Your task to perform on an android device: change alarm snooze length Image 0: 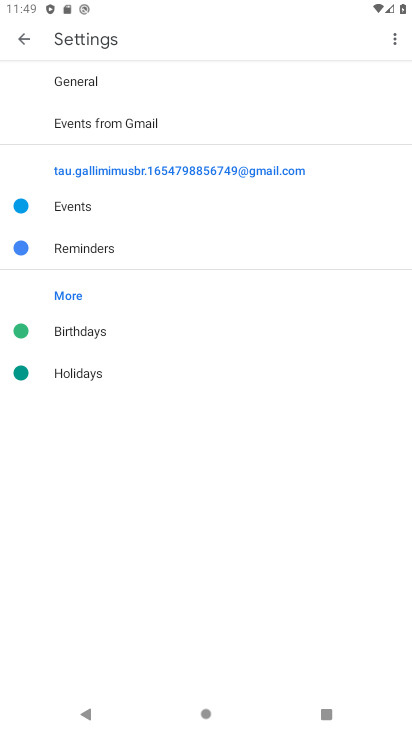
Step 0: press home button
Your task to perform on an android device: change alarm snooze length Image 1: 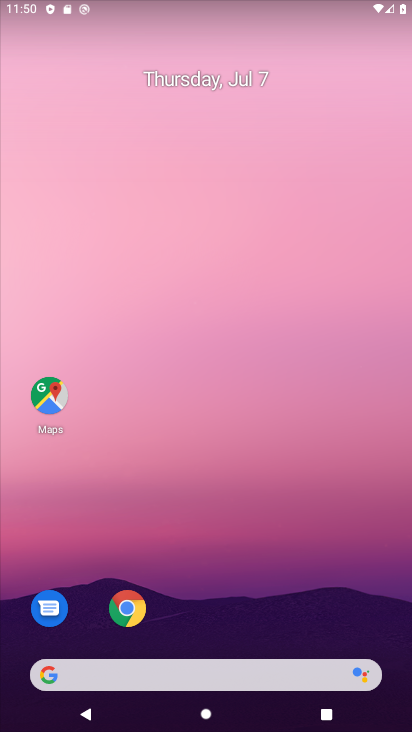
Step 1: drag from (233, 621) to (240, 145)
Your task to perform on an android device: change alarm snooze length Image 2: 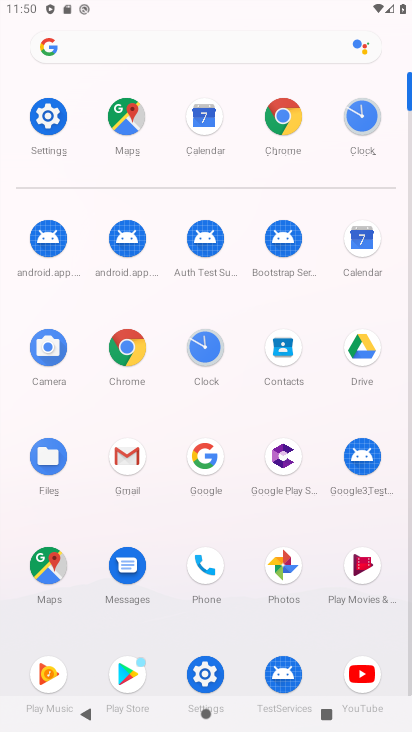
Step 2: click (382, 136)
Your task to perform on an android device: change alarm snooze length Image 3: 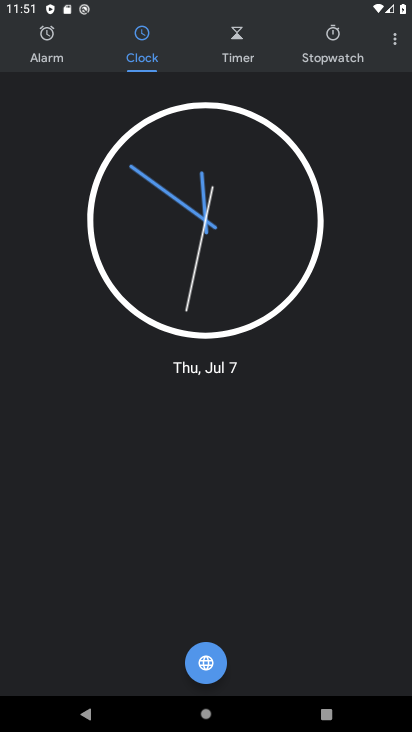
Step 3: click (394, 42)
Your task to perform on an android device: change alarm snooze length Image 4: 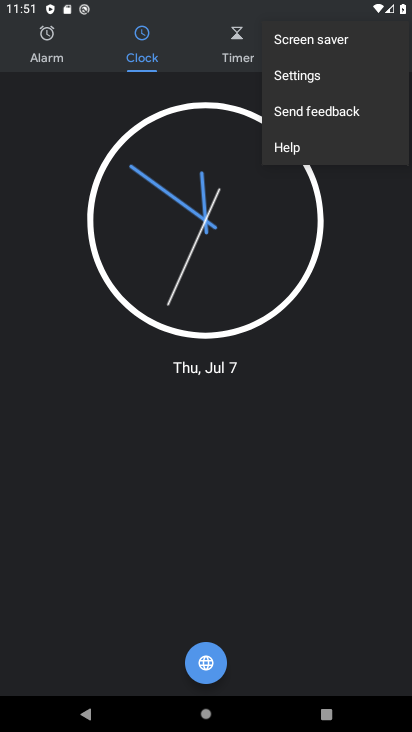
Step 4: click (336, 82)
Your task to perform on an android device: change alarm snooze length Image 5: 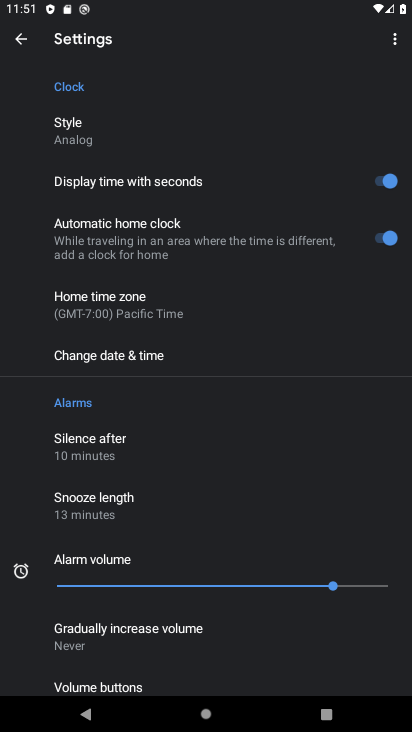
Step 5: click (194, 485)
Your task to perform on an android device: change alarm snooze length Image 6: 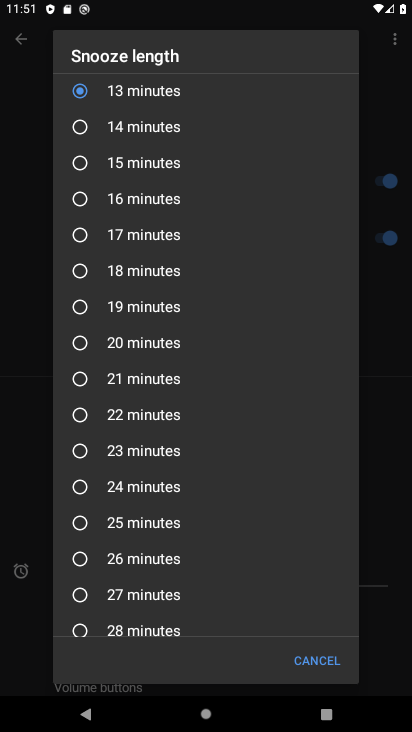
Step 6: click (121, 351)
Your task to perform on an android device: change alarm snooze length Image 7: 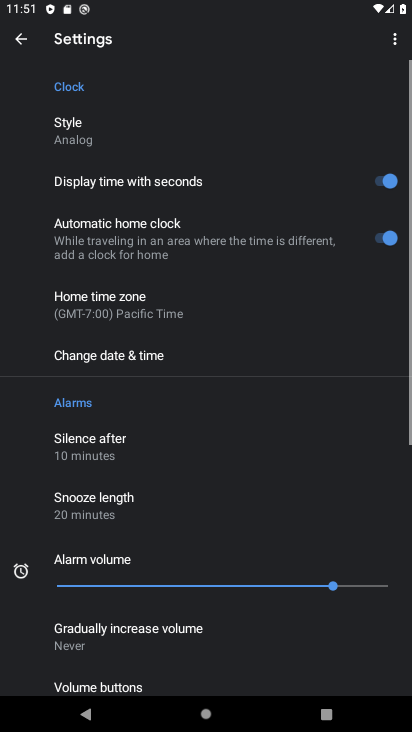
Step 7: task complete